Your task to perform on an android device: Open battery settings Image 0: 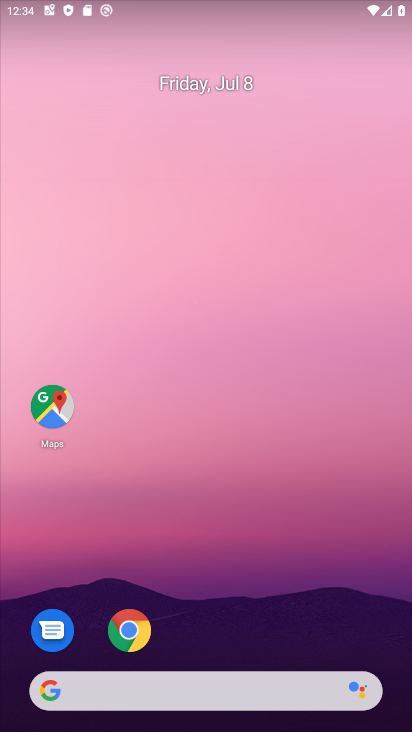
Step 0: drag from (372, 641) to (235, 106)
Your task to perform on an android device: Open battery settings Image 1: 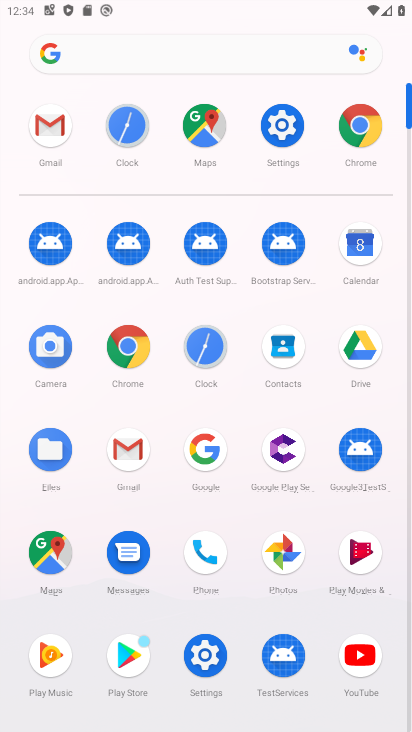
Step 1: click (290, 130)
Your task to perform on an android device: Open battery settings Image 2: 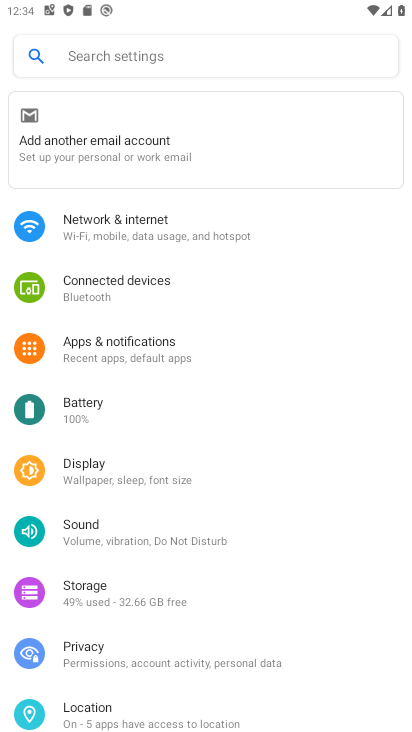
Step 2: click (103, 391)
Your task to perform on an android device: Open battery settings Image 3: 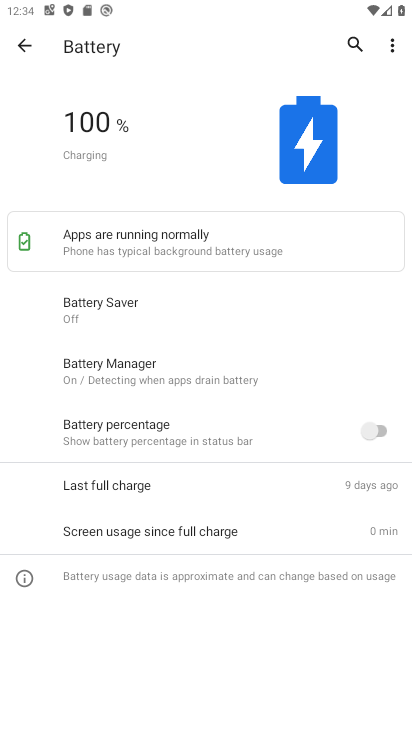
Step 3: task complete